Your task to perform on an android device: toggle pop-ups in chrome Image 0: 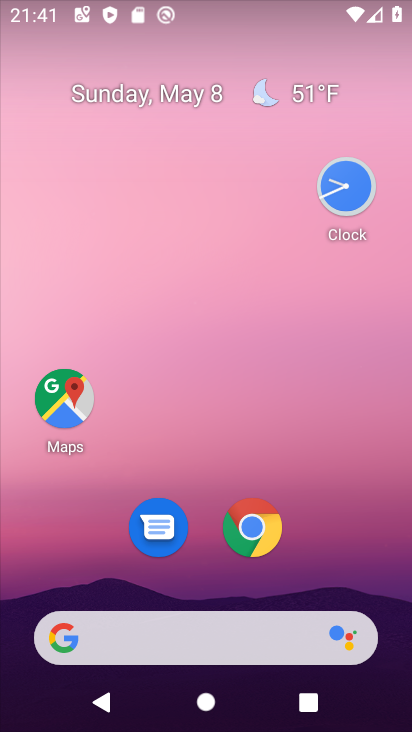
Step 0: click (250, 513)
Your task to perform on an android device: toggle pop-ups in chrome Image 1: 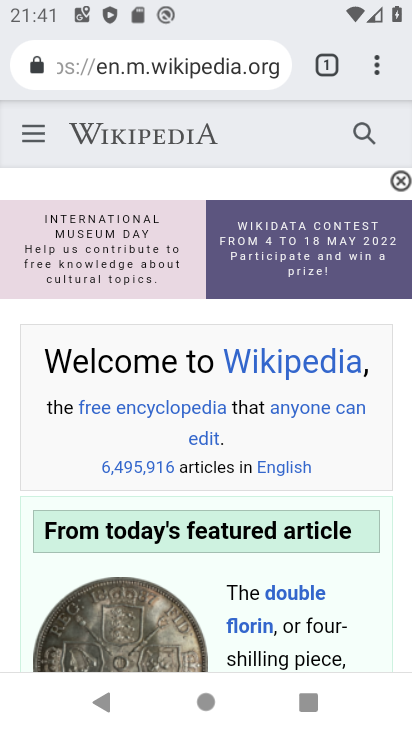
Step 1: click (374, 62)
Your task to perform on an android device: toggle pop-ups in chrome Image 2: 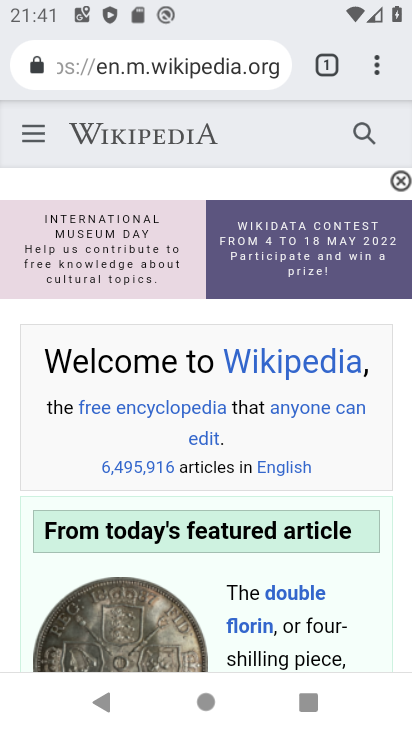
Step 2: click (375, 57)
Your task to perform on an android device: toggle pop-ups in chrome Image 3: 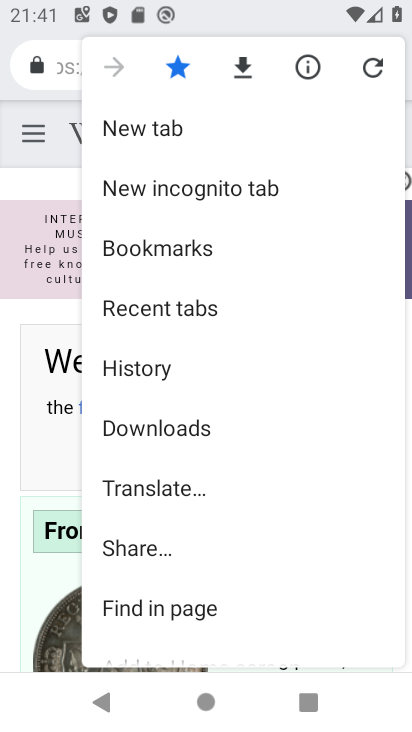
Step 3: drag from (191, 599) to (231, 356)
Your task to perform on an android device: toggle pop-ups in chrome Image 4: 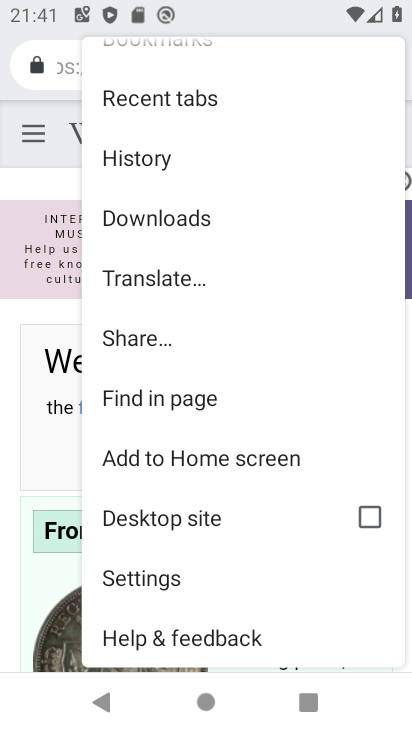
Step 4: click (194, 586)
Your task to perform on an android device: toggle pop-ups in chrome Image 5: 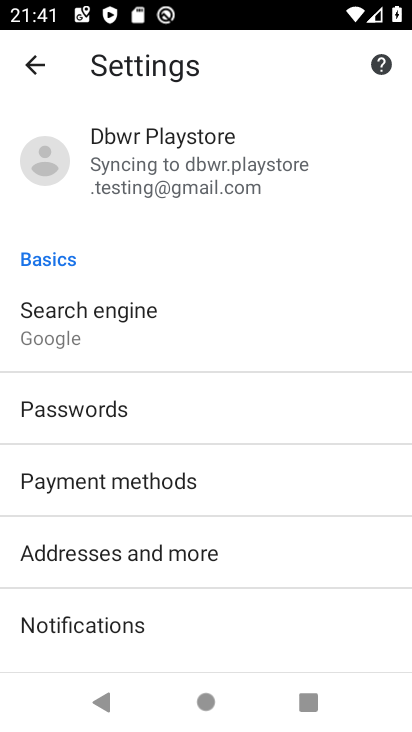
Step 5: drag from (188, 572) to (231, 306)
Your task to perform on an android device: toggle pop-ups in chrome Image 6: 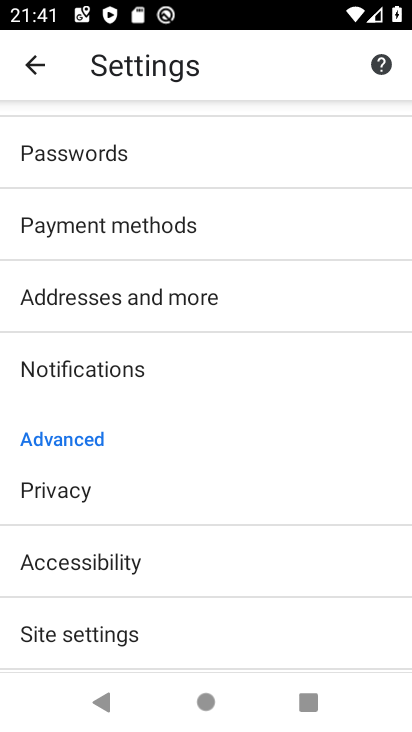
Step 6: drag from (102, 568) to (177, 275)
Your task to perform on an android device: toggle pop-ups in chrome Image 7: 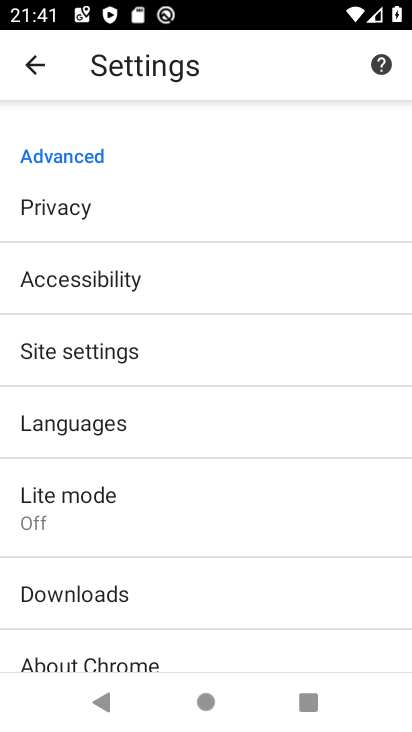
Step 7: drag from (83, 534) to (151, 237)
Your task to perform on an android device: toggle pop-ups in chrome Image 8: 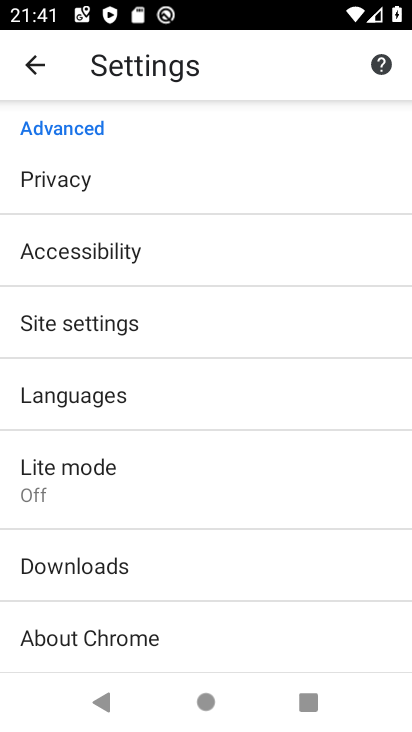
Step 8: click (132, 309)
Your task to perform on an android device: toggle pop-ups in chrome Image 9: 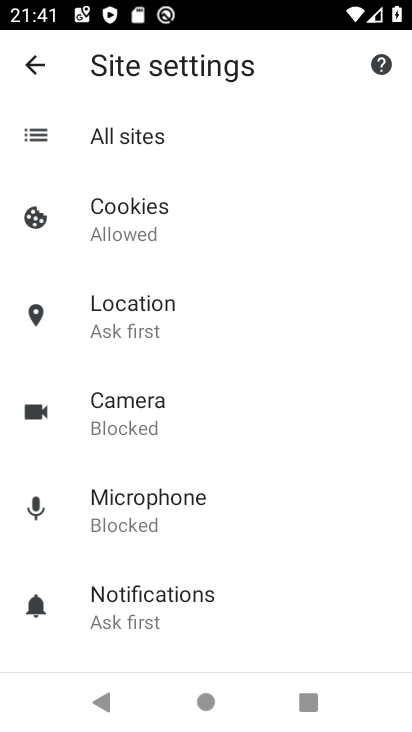
Step 9: drag from (107, 585) to (125, 243)
Your task to perform on an android device: toggle pop-ups in chrome Image 10: 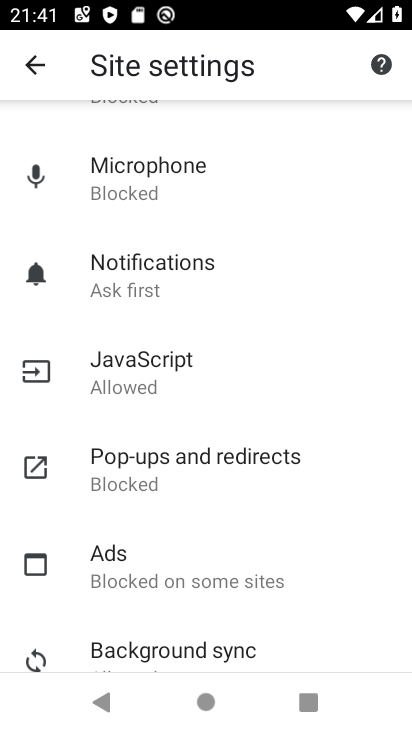
Step 10: click (124, 469)
Your task to perform on an android device: toggle pop-ups in chrome Image 11: 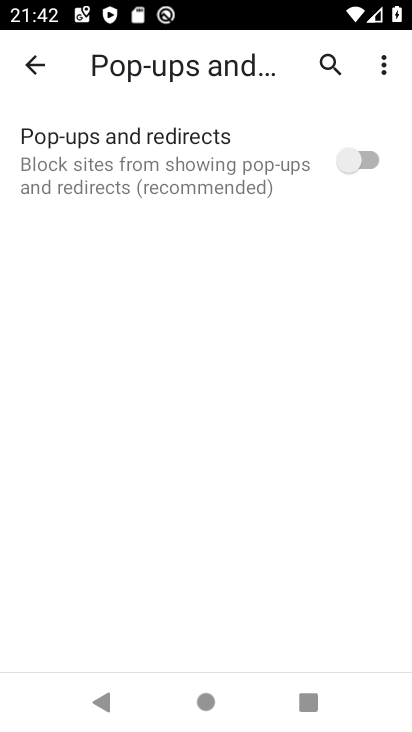
Step 11: click (346, 160)
Your task to perform on an android device: toggle pop-ups in chrome Image 12: 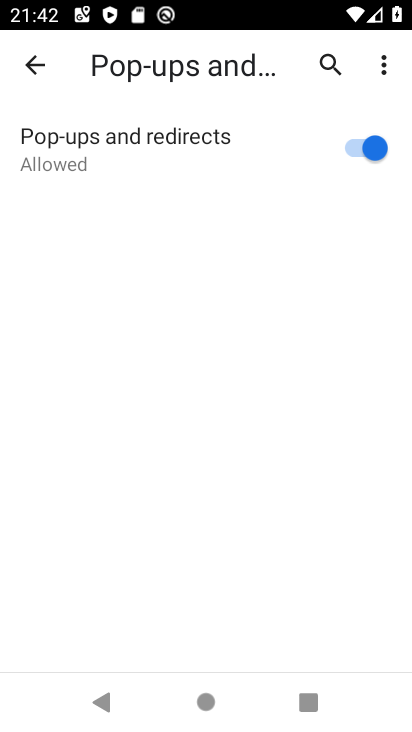
Step 12: task complete